Your task to perform on an android device: Open the map Image 0: 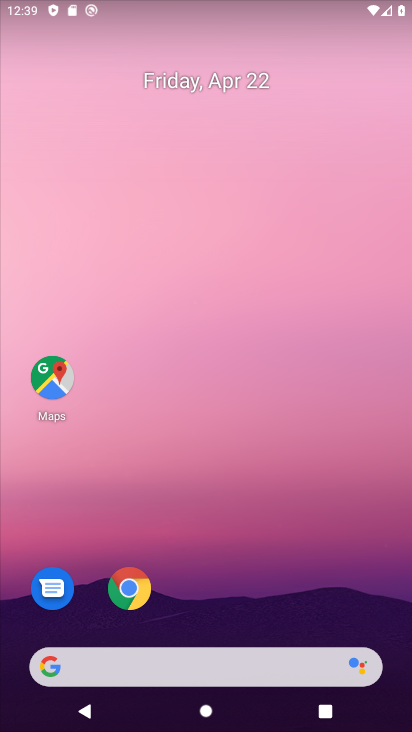
Step 0: drag from (370, 594) to (374, 212)
Your task to perform on an android device: Open the map Image 1: 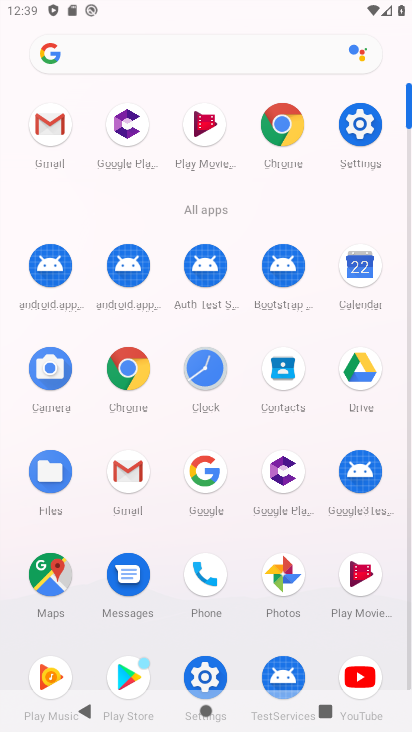
Step 1: click (46, 574)
Your task to perform on an android device: Open the map Image 2: 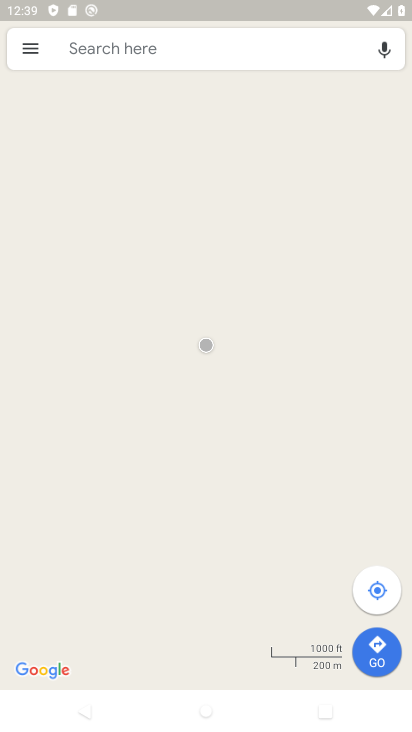
Step 2: click (181, 53)
Your task to perform on an android device: Open the map Image 3: 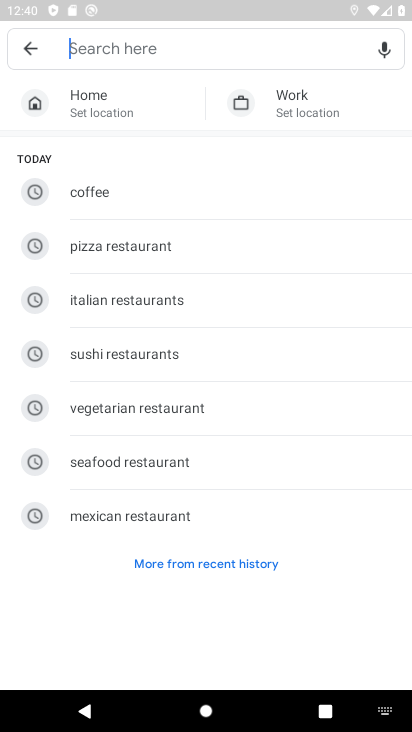
Step 3: click (23, 36)
Your task to perform on an android device: Open the map Image 4: 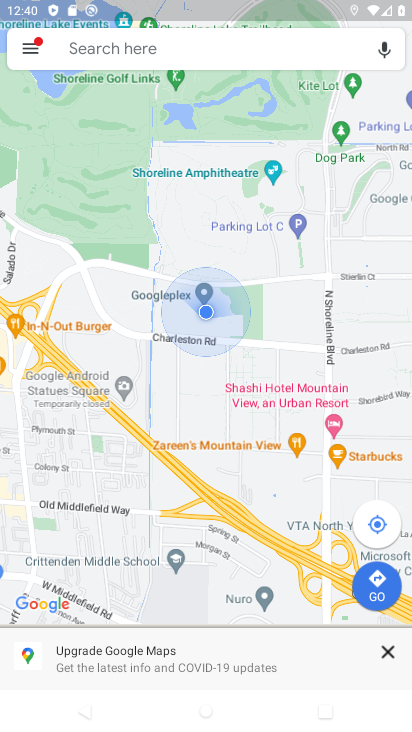
Step 4: task complete